Your task to perform on an android device: turn on the 12-hour format for clock Image 0: 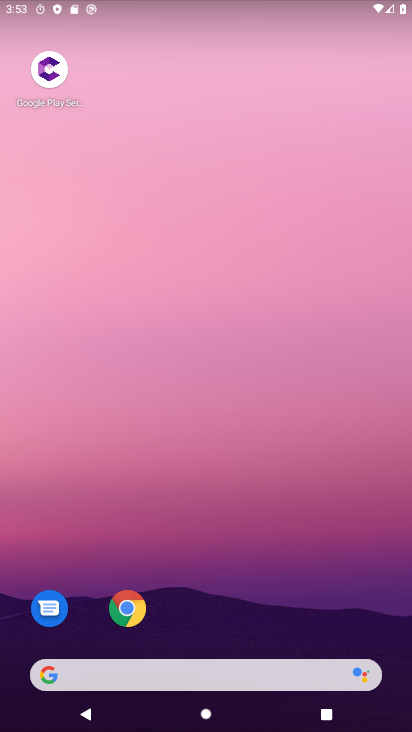
Step 0: drag from (296, 592) to (295, 87)
Your task to perform on an android device: turn on the 12-hour format for clock Image 1: 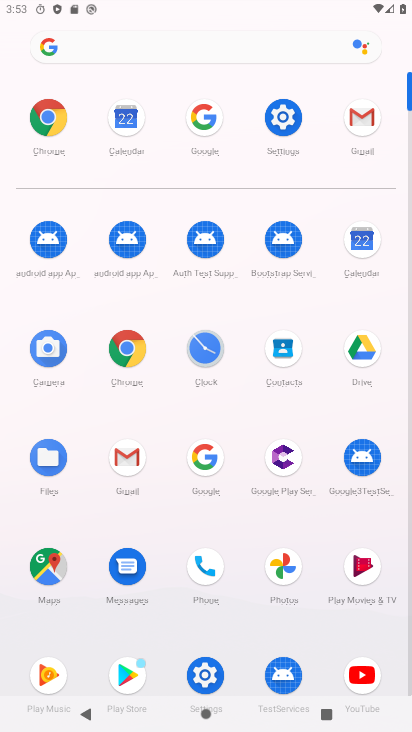
Step 1: click (208, 353)
Your task to perform on an android device: turn on the 12-hour format for clock Image 2: 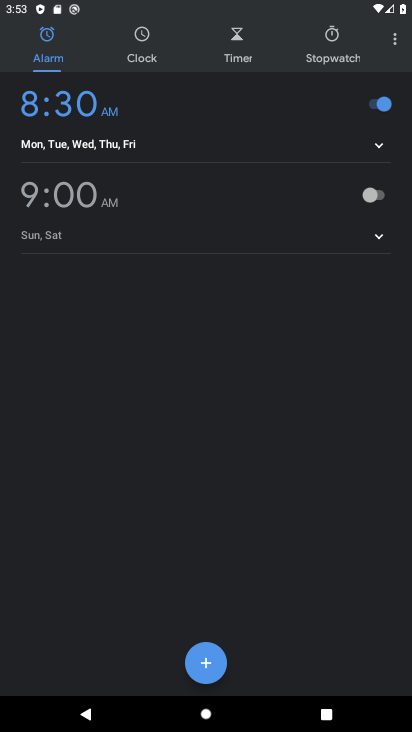
Step 2: click (393, 42)
Your task to perform on an android device: turn on the 12-hour format for clock Image 3: 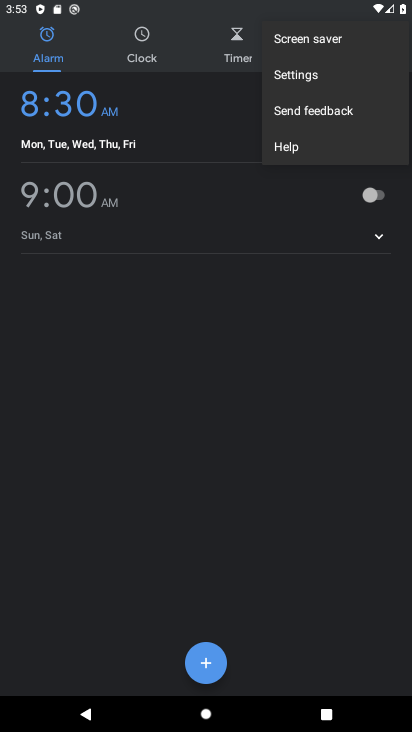
Step 3: click (325, 80)
Your task to perform on an android device: turn on the 12-hour format for clock Image 4: 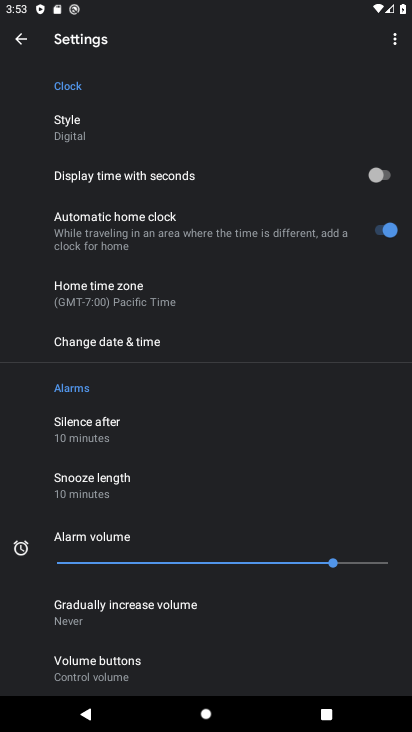
Step 4: drag from (239, 515) to (266, 127)
Your task to perform on an android device: turn on the 12-hour format for clock Image 5: 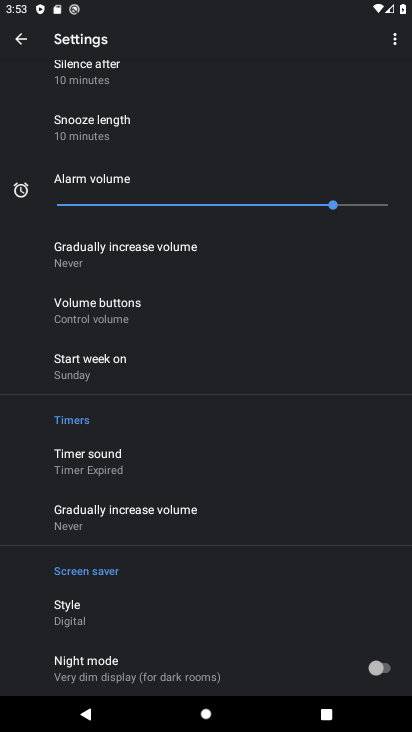
Step 5: drag from (229, 109) to (237, 542)
Your task to perform on an android device: turn on the 12-hour format for clock Image 6: 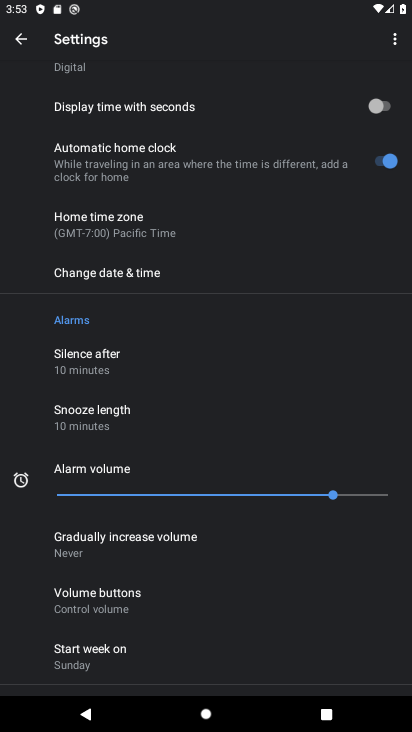
Step 6: click (153, 269)
Your task to perform on an android device: turn on the 12-hour format for clock Image 7: 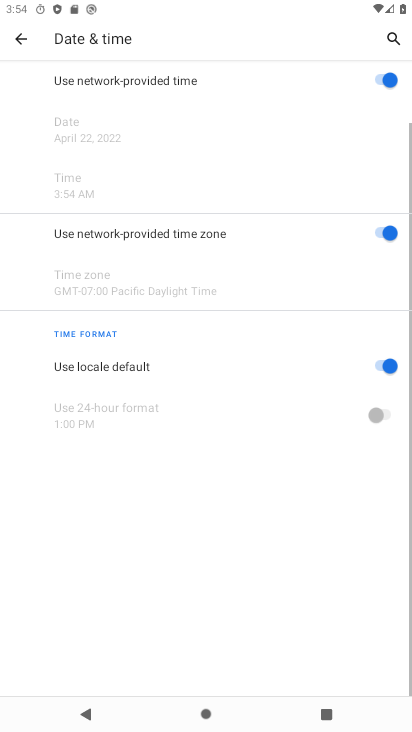
Step 7: task complete